Your task to perform on an android device: Open Google Chrome and click the shortcut for Amazon.com Image 0: 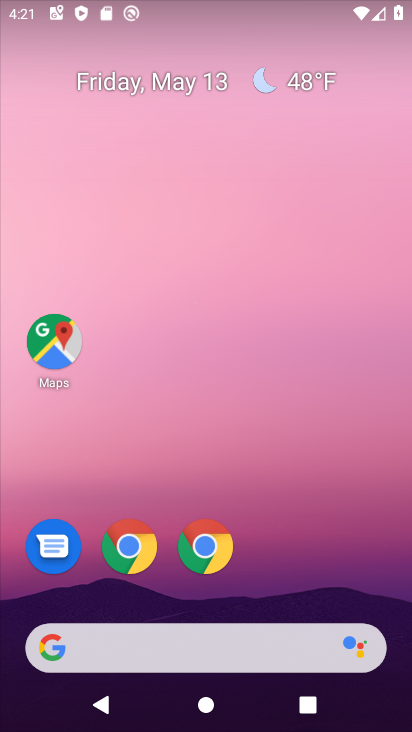
Step 0: drag from (315, 557) to (85, 17)
Your task to perform on an android device: Open Google Chrome and click the shortcut for Amazon.com Image 1: 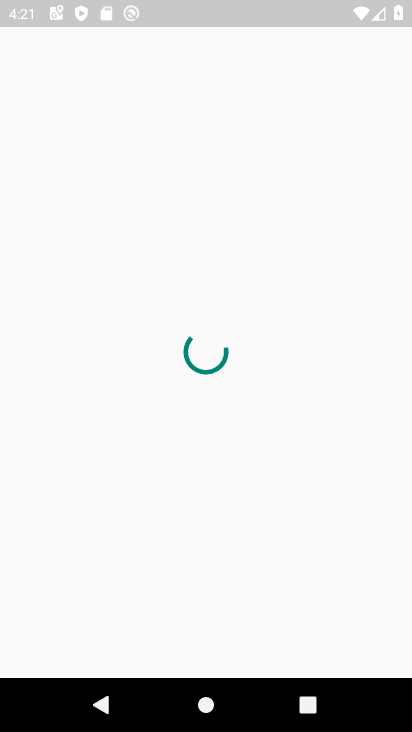
Step 1: click (123, 149)
Your task to perform on an android device: Open Google Chrome and click the shortcut for Amazon.com Image 2: 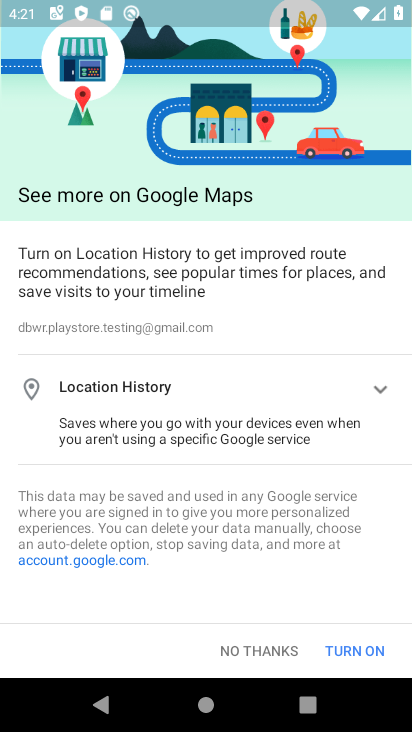
Step 2: press home button
Your task to perform on an android device: Open Google Chrome and click the shortcut for Amazon.com Image 3: 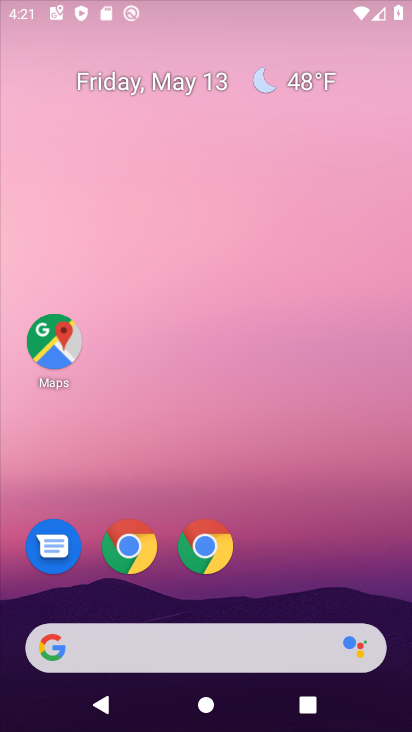
Step 3: drag from (349, 573) to (178, 1)
Your task to perform on an android device: Open Google Chrome and click the shortcut for Amazon.com Image 4: 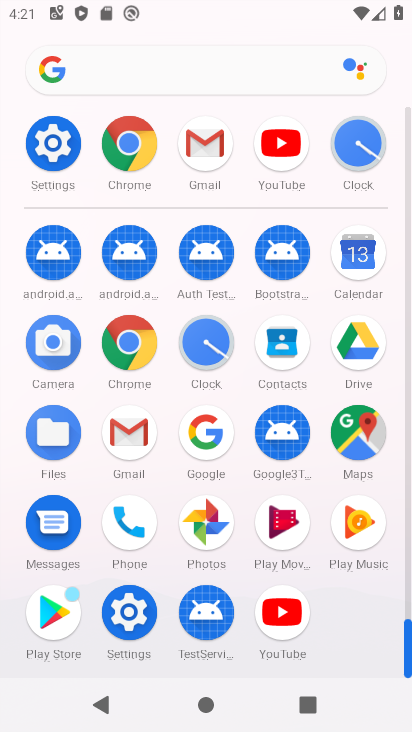
Step 4: click (124, 160)
Your task to perform on an android device: Open Google Chrome and click the shortcut for Amazon.com Image 5: 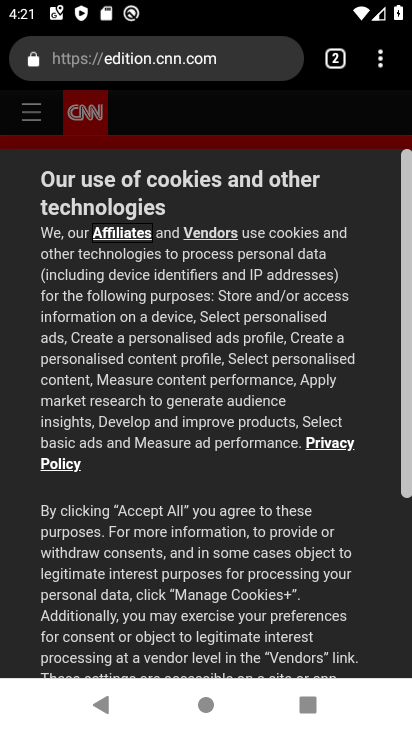
Step 5: click (379, 55)
Your task to perform on an android device: Open Google Chrome and click the shortcut for Amazon.com Image 6: 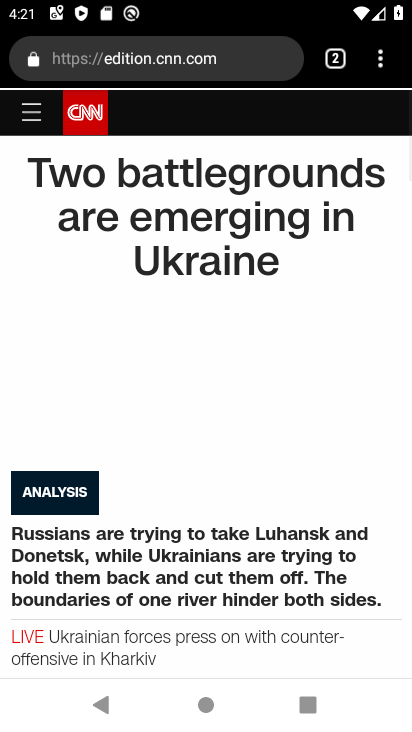
Step 6: drag from (381, 59) to (167, 122)
Your task to perform on an android device: Open Google Chrome and click the shortcut for Amazon.com Image 7: 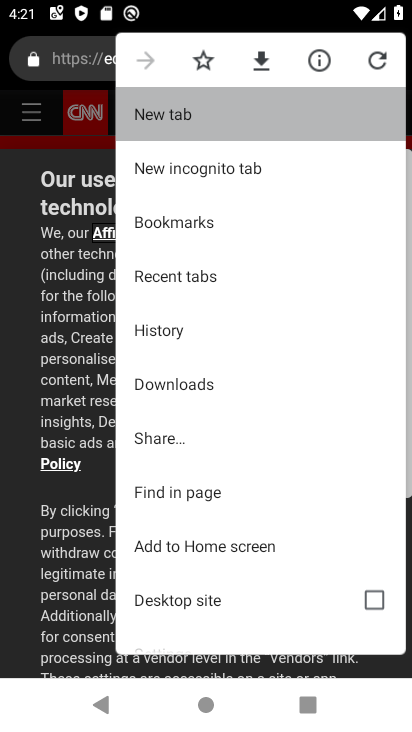
Step 7: click (167, 122)
Your task to perform on an android device: Open Google Chrome and click the shortcut for Amazon.com Image 8: 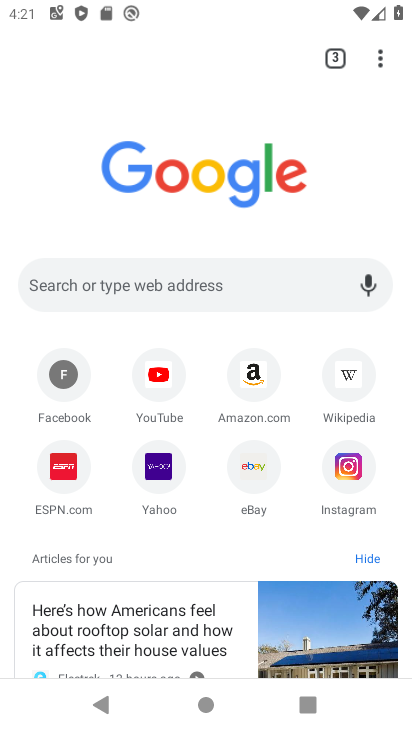
Step 8: click (252, 370)
Your task to perform on an android device: Open Google Chrome and click the shortcut for Amazon.com Image 9: 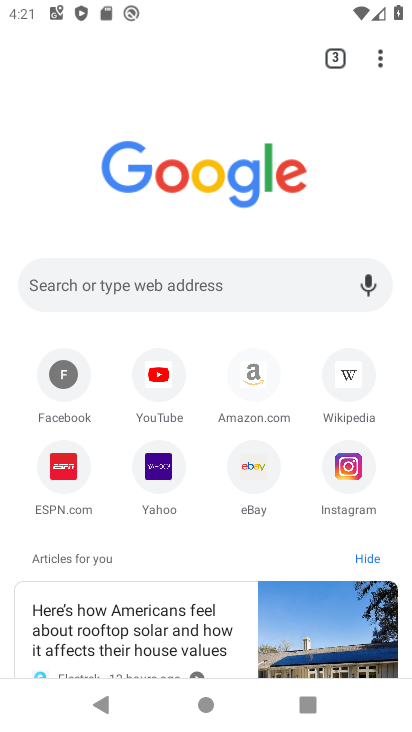
Step 9: click (255, 367)
Your task to perform on an android device: Open Google Chrome and click the shortcut for Amazon.com Image 10: 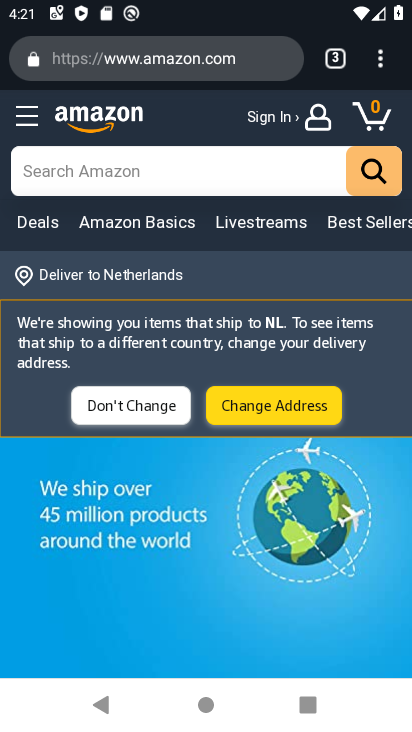
Step 10: task complete